Your task to perform on an android device: turn off notifications settings in the gmail app Image 0: 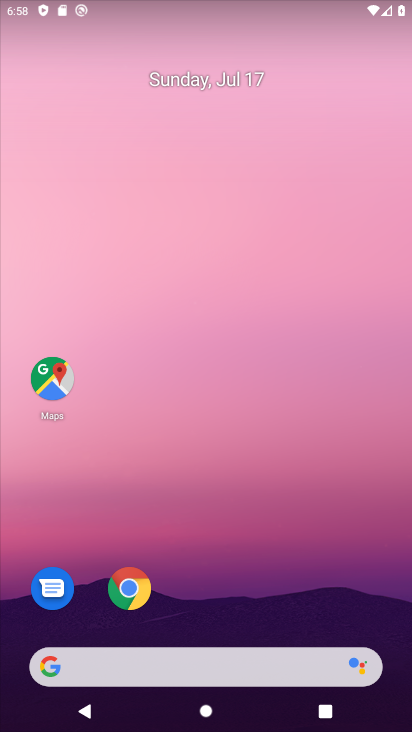
Step 0: drag from (321, 574) to (287, 18)
Your task to perform on an android device: turn off notifications settings in the gmail app Image 1: 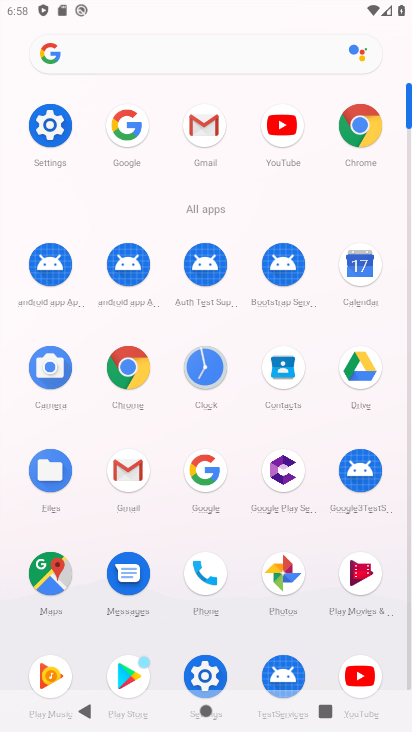
Step 1: click (138, 469)
Your task to perform on an android device: turn off notifications settings in the gmail app Image 2: 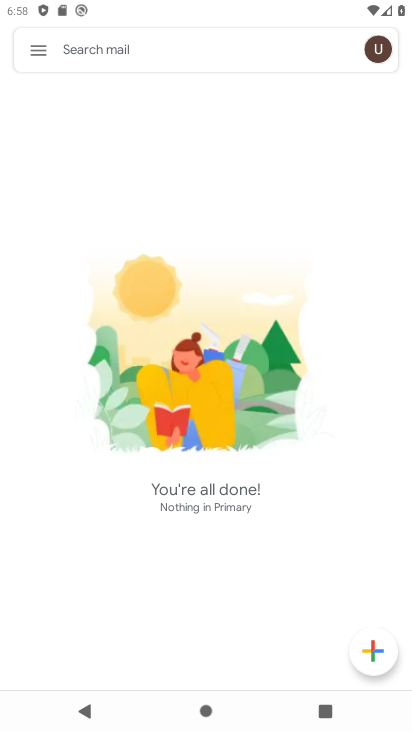
Step 2: click (26, 42)
Your task to perform on an android device: turn off notifications settings in the gmail app Image 3: 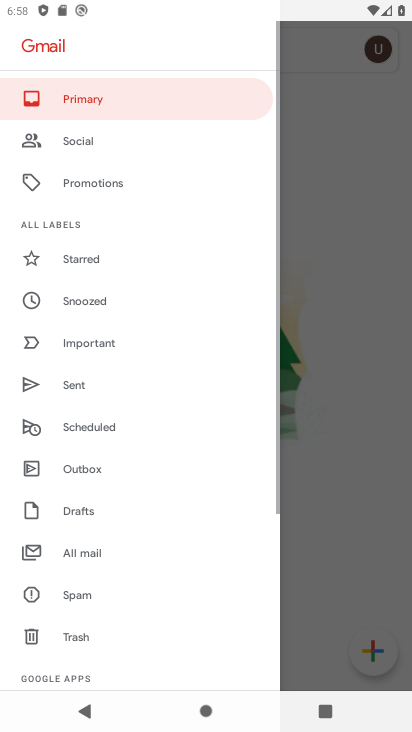
Step 3: drag from (125, 674) to (251, 105)
Your task to perform on an android device: turn off notifications settings in the gmail app Image 4: 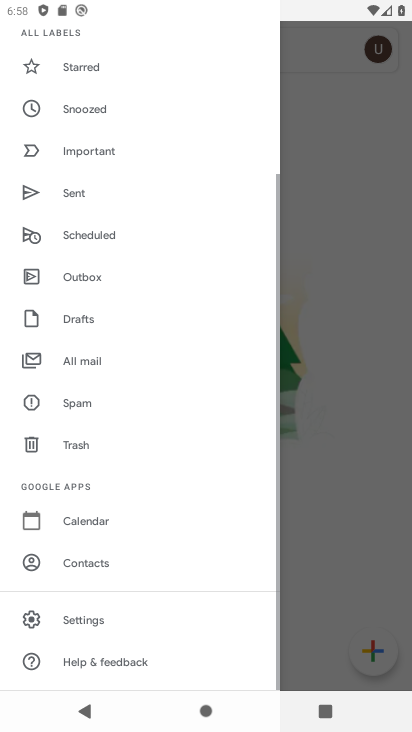
Step 4: click (82, 621)
Your task to perform on an android device: turn off notifications settings in the gmail app Image 5: 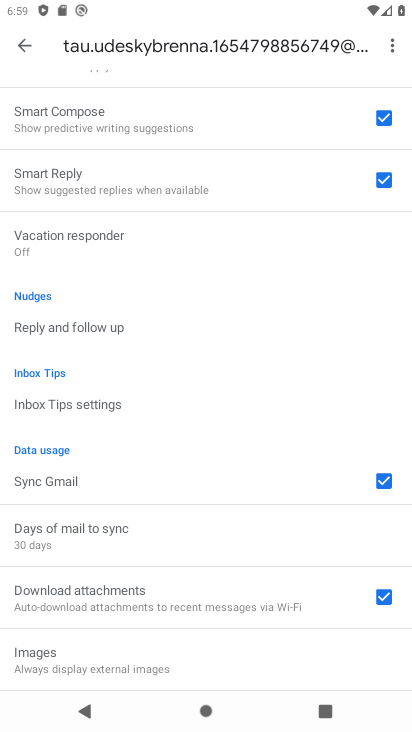
Step 5: drag from (178, 202) to (228, 710)
Your task to perform on an android device: turn off notifications settings in the gmail app Image 6: 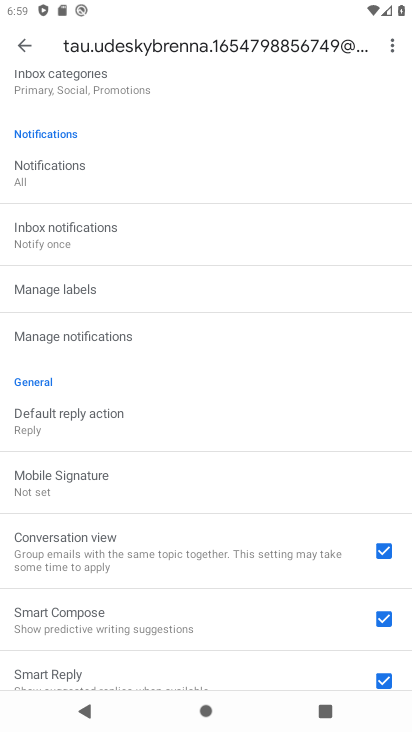
Step 6: click (123, 191)
Your task to perform on an android device: turn off notifications settings in the gmail app Image 7: 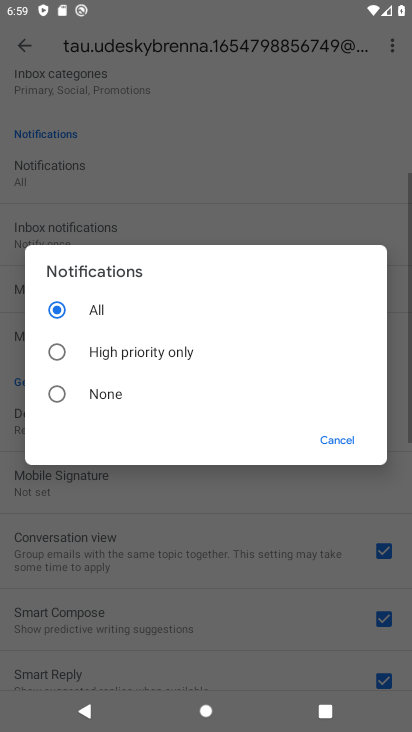
Step 7: click (89, 388)
Your task to perform on an android device: turn off notifications settings in the gmail app Image 8: 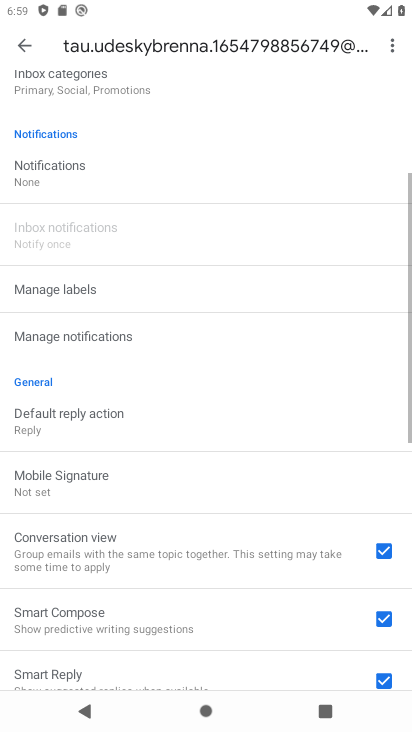
Step 8: task complete